Your task to perform on an android device: Clear the cart on bestbuy. Image 0: 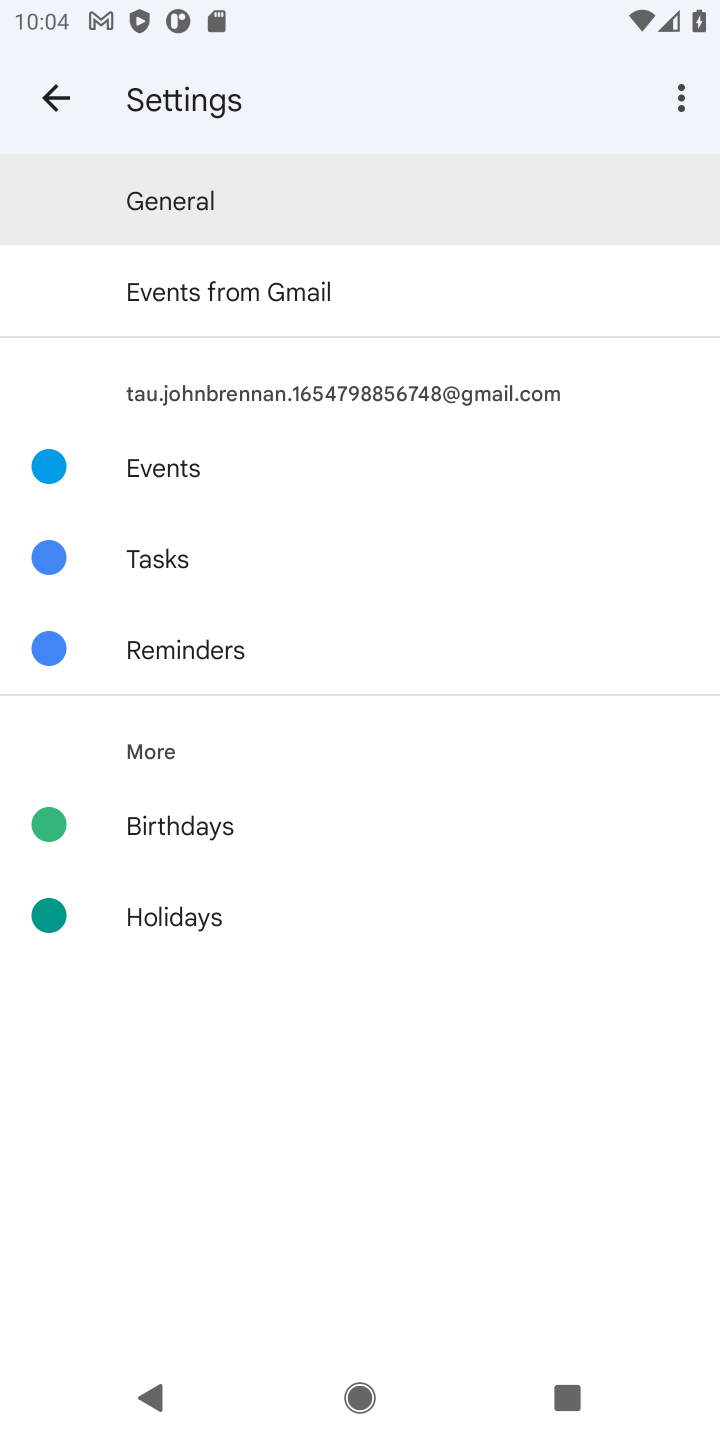
Step 0: press home button
Your task to perform on an android device: Clear the cart on bestbuy. Image 1: 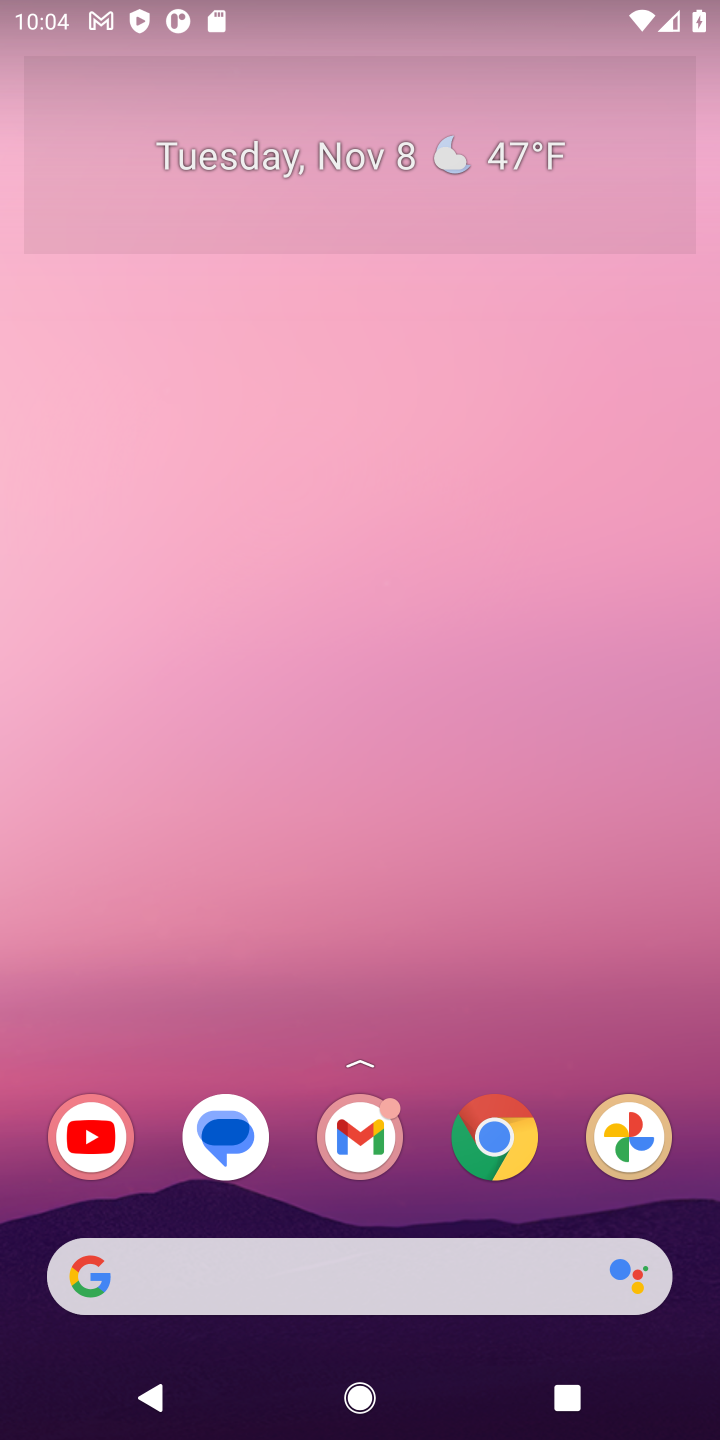
Step 1: click (499, 1137)
Your task to perform on an android device: Clear the cart on bestbuy. Image 2: 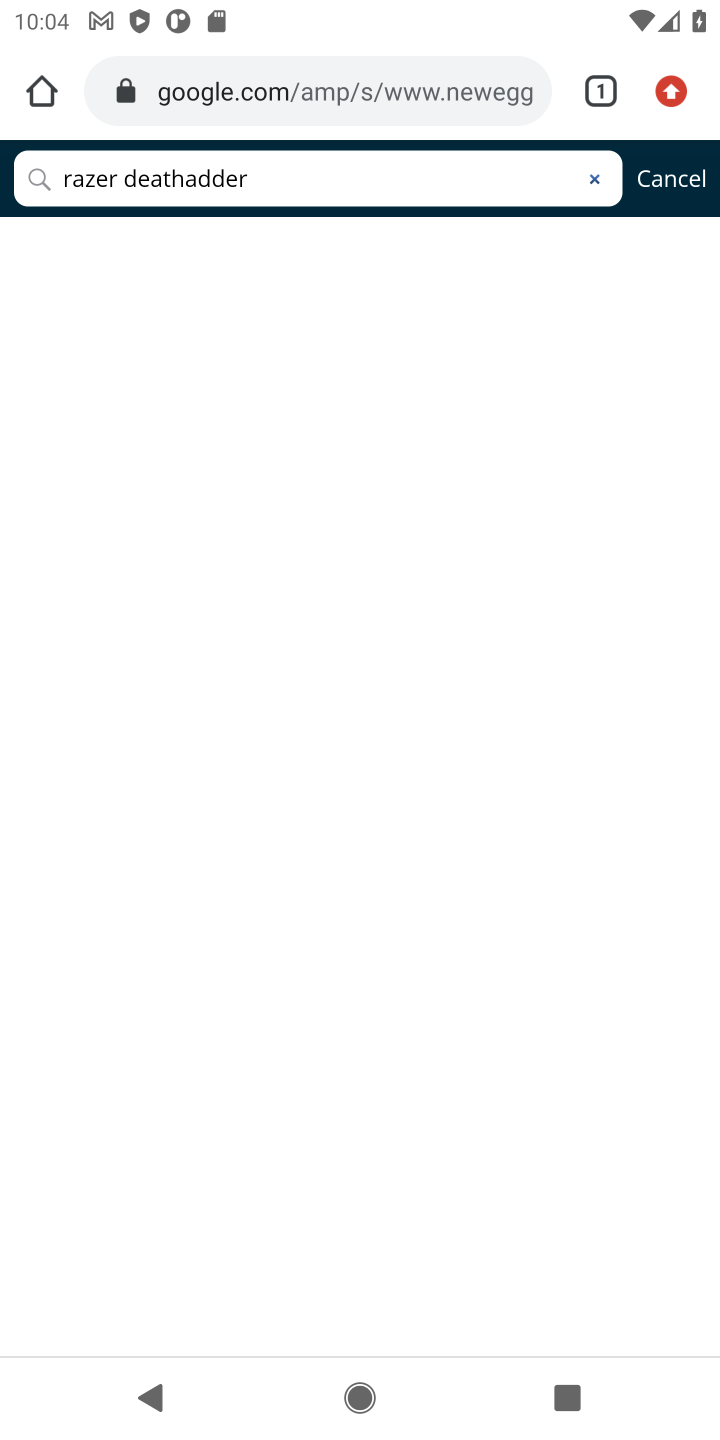
Step 2: click (446, 80)
Your task to perform on an android device: Clear the cart on bestbuy. Image 3: 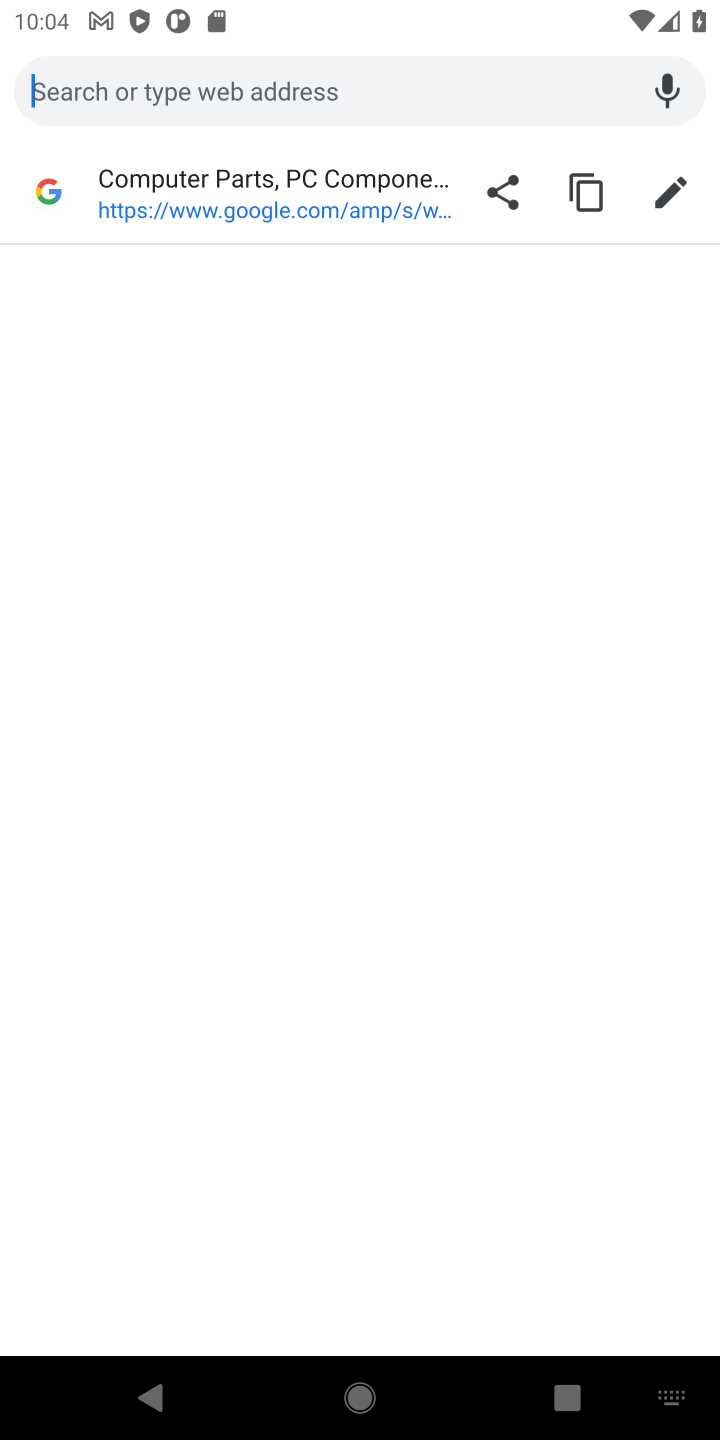
Step 3: type "bestbuy"
Your task to perform on an android device: Clear the cart on bestbuy. Image 4: 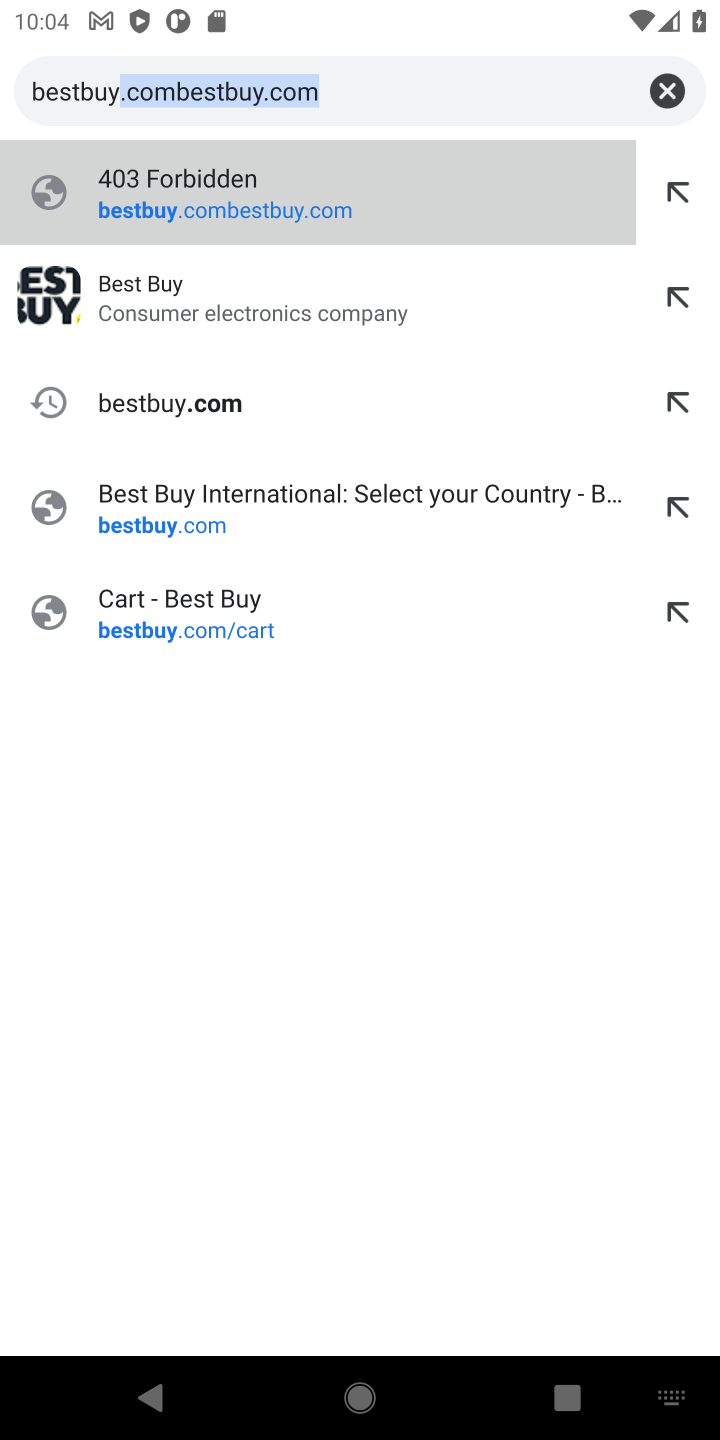
Step 4: click (145, 306)
Your task to perform on an android device: Clear the cart on bestbuy. Image 5: 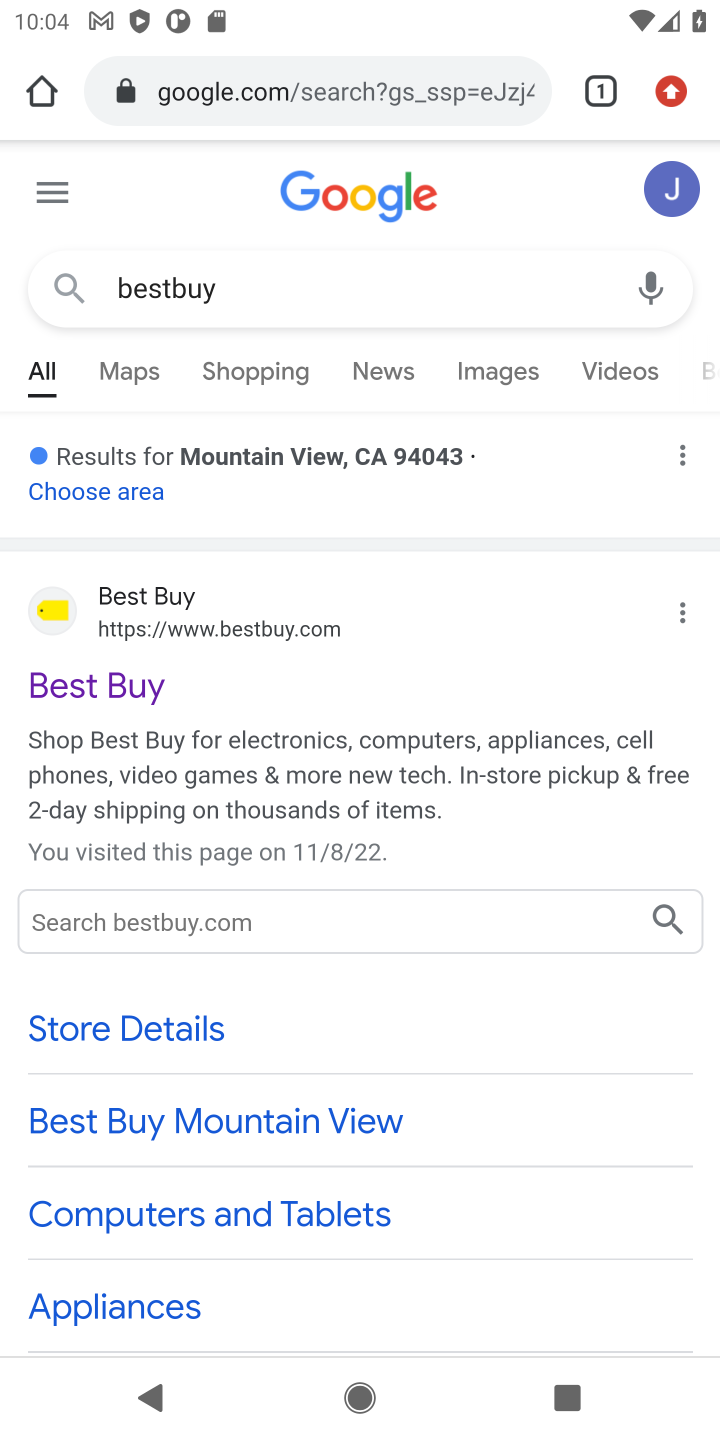
Step 5: click (153, 662)
Your task to perform on an android device: Clear the cart on bestbuy. Image 6: 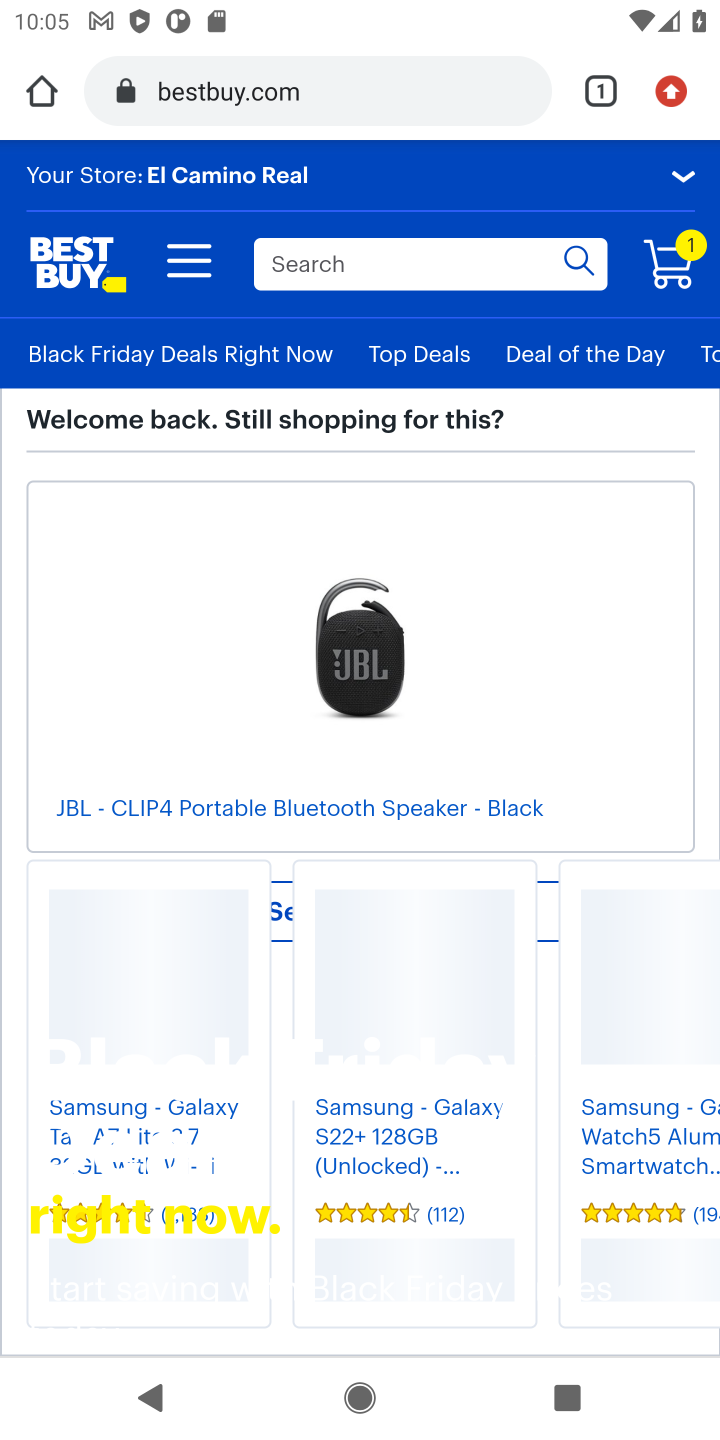
Step 6: click (669, 262)
Your task to perform on an android device: Clear the cart on bestbuy. Image 7: 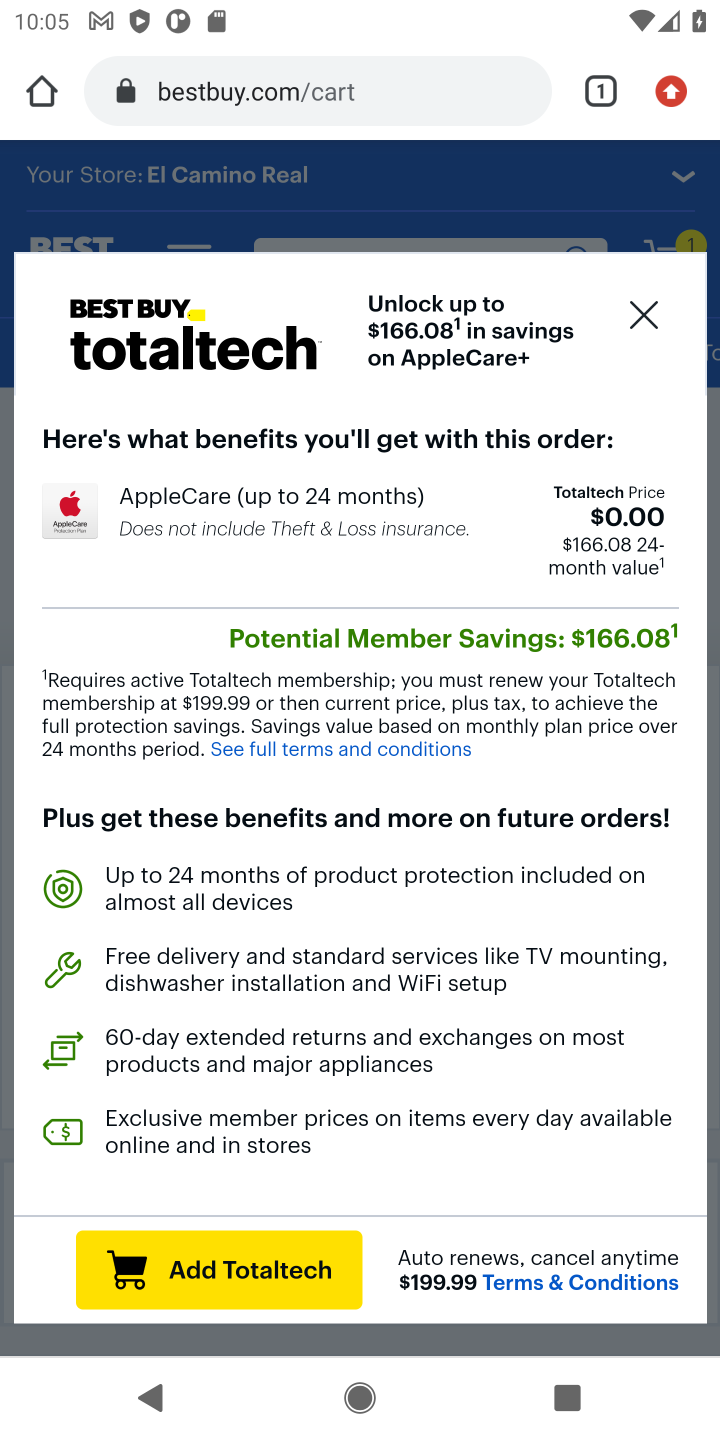
Step 7: click (643, 302)
Your task to perform on an android device: Clear the cart on bestbuy. Image 8: 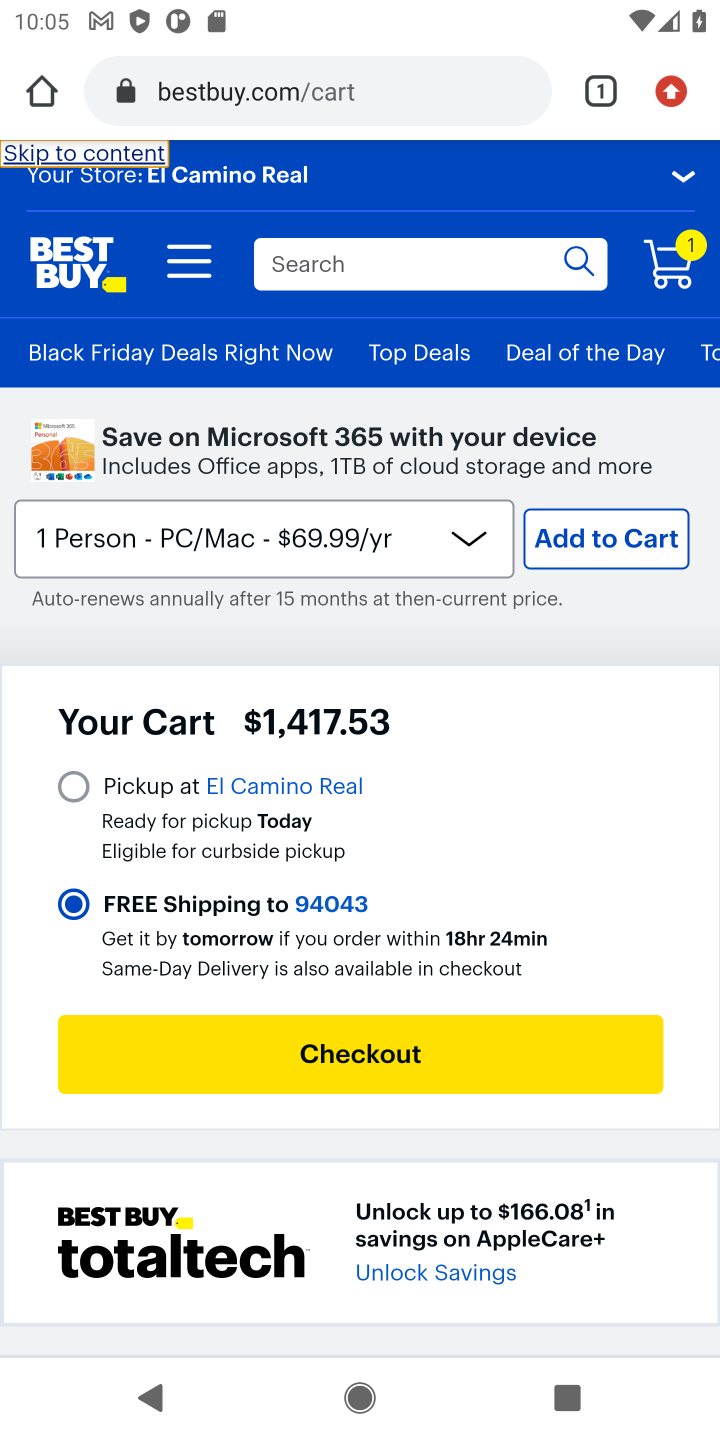
Step 8: click (675, 271)
Your task to perform on an android device: Clear the cart on bestbuy. Image 9: 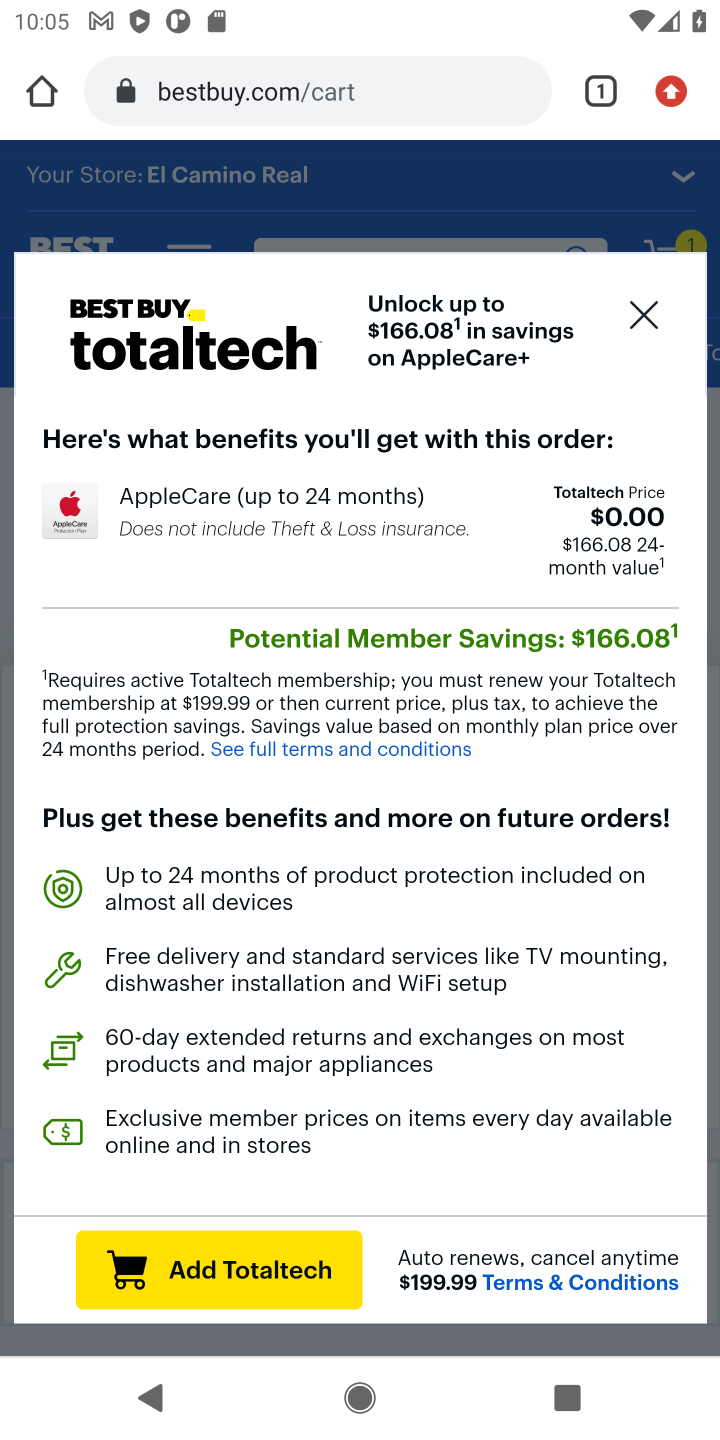
Step 9: click (646, 310)
Your task to perform on an android device: Clear the cart on bestbuy. Image 10: 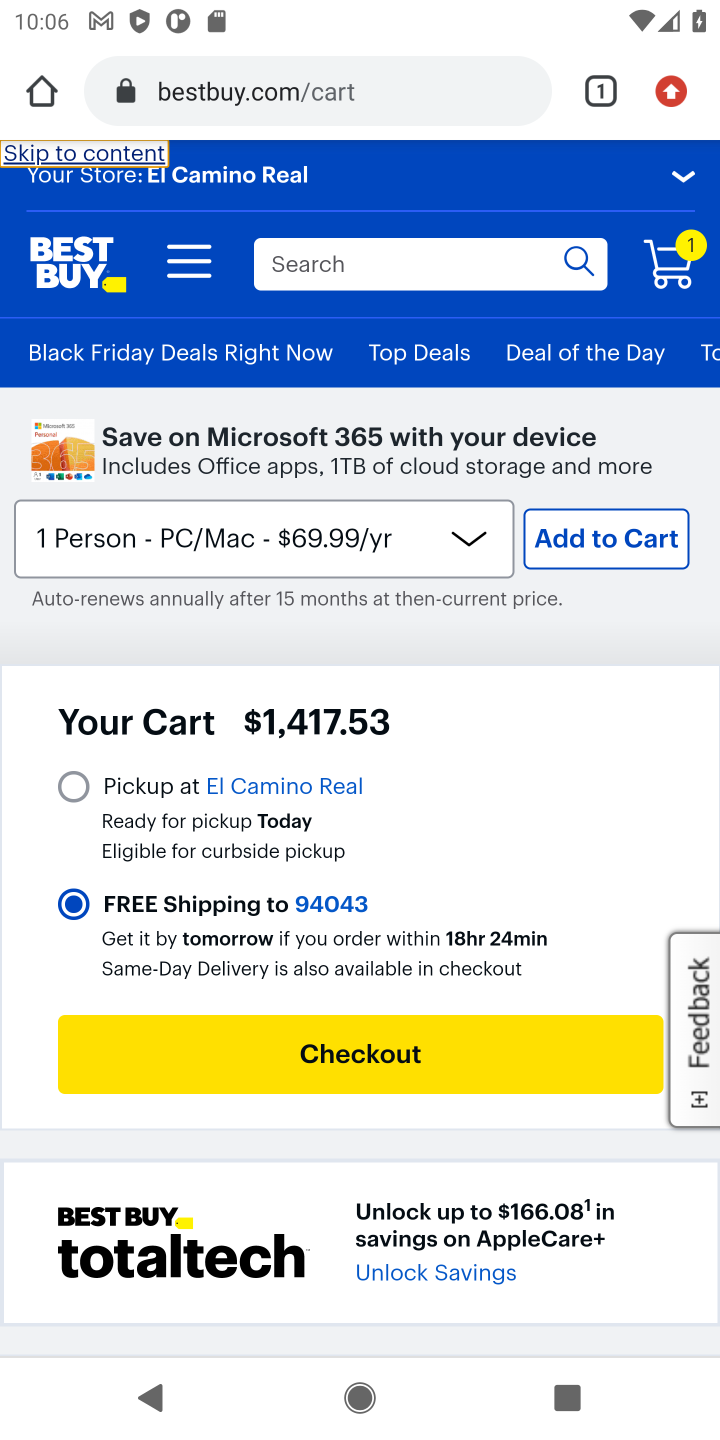
Step 10: drag from (366, 1157) to (474, 727)
Your task to perform on an android device: Clear the cart on bestbuy. Image 11: 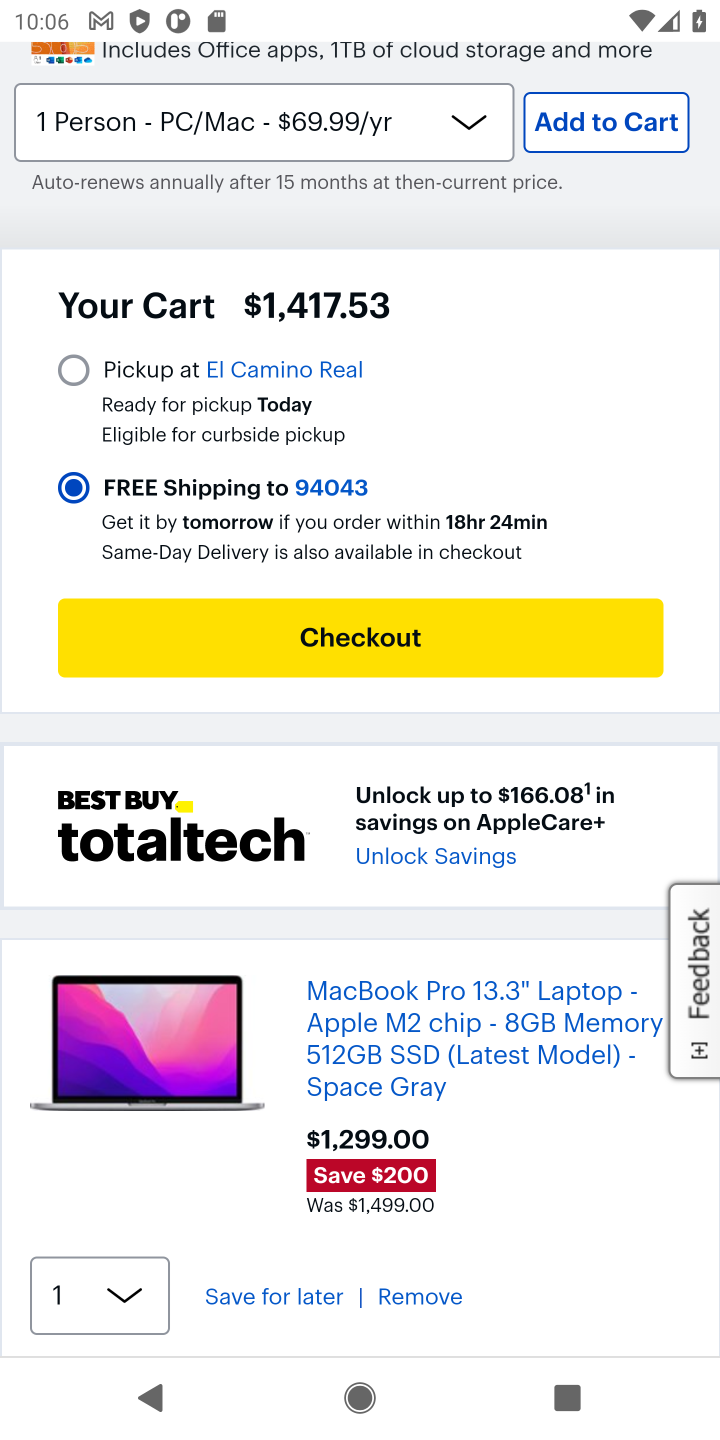
Step 11: click (388, 1299)
Your task to perform on an android device: Clear the cart on bestbuy. Image 12: 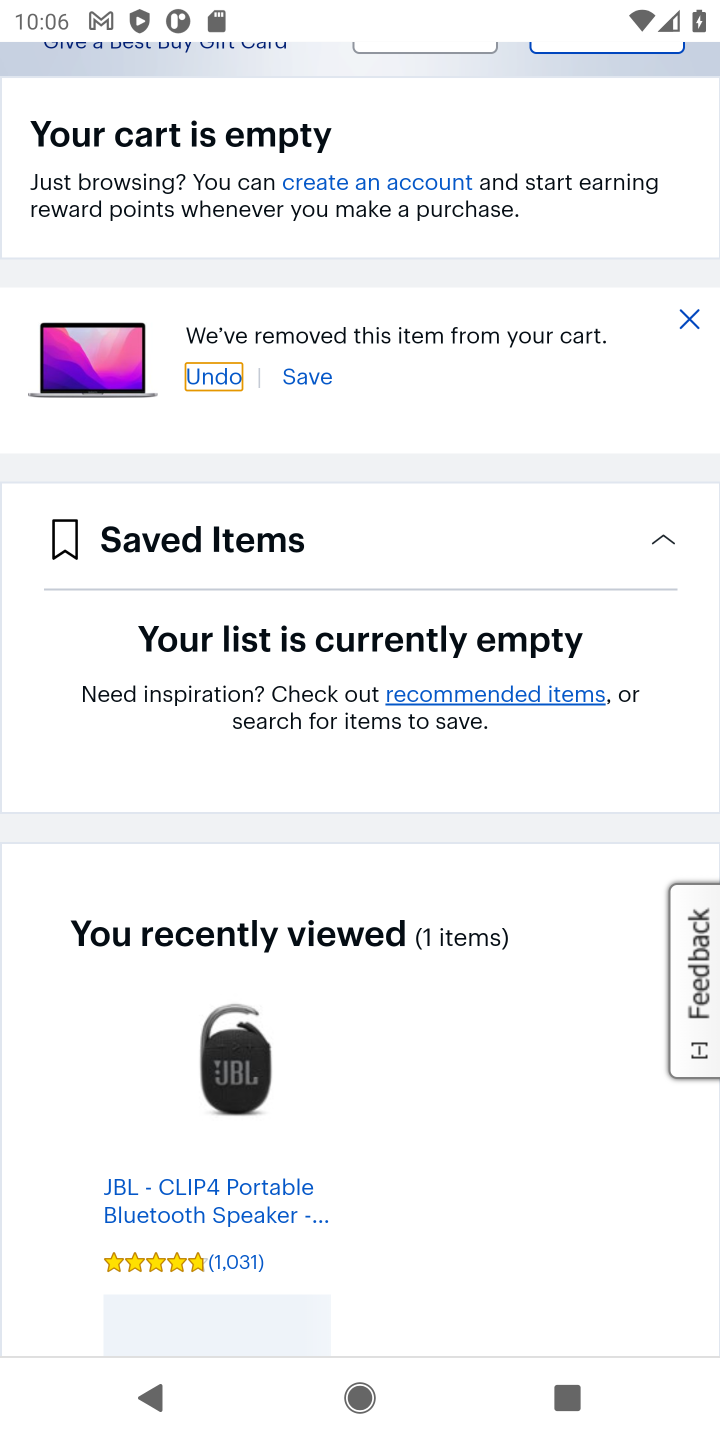
Step 12: task complete